Your task to perform on an android device: Search for vegetarian restaurants on Maps Image 0: 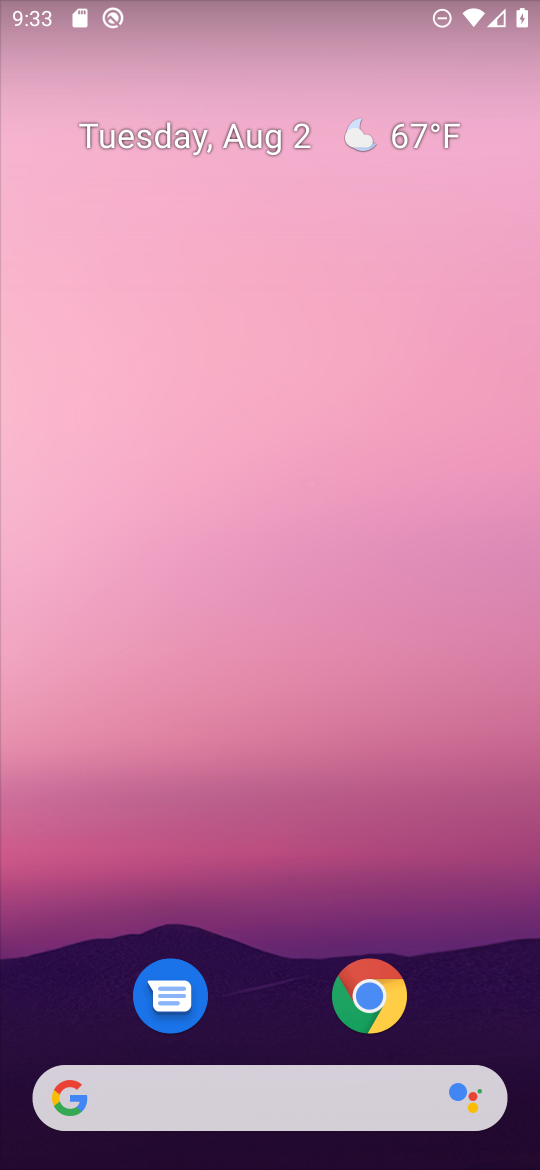
Step 0: drag from (259, 894) to (349, 18)
Your task to perform on an android device: Search for vegetarian restaurants on Maps Image 1: 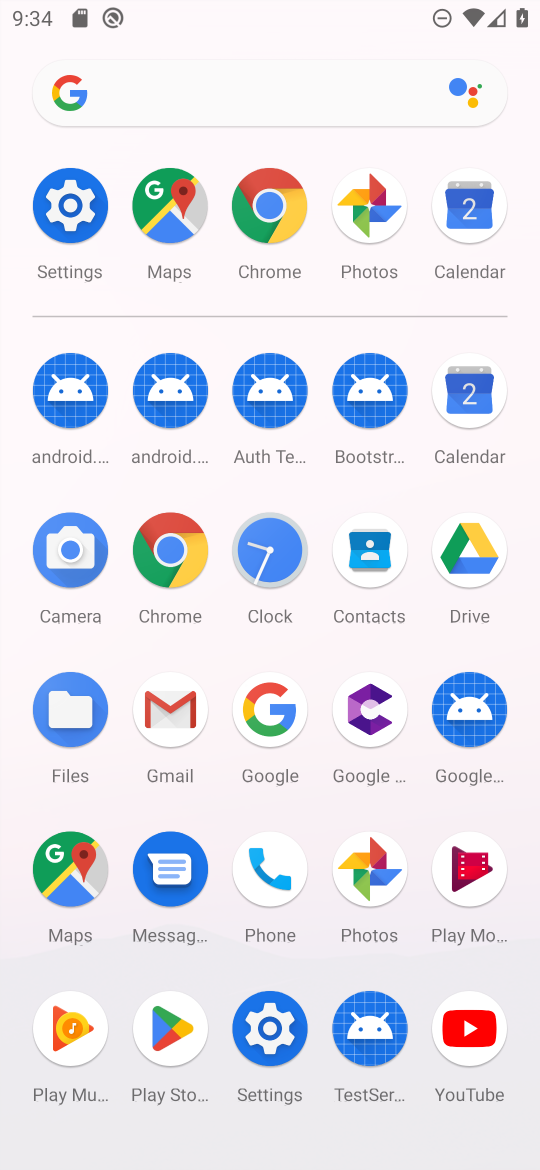
Step 1: click (83, 848)
Your task to perform on an android device: Search for vegetarian restaurants on Maps Image 2: 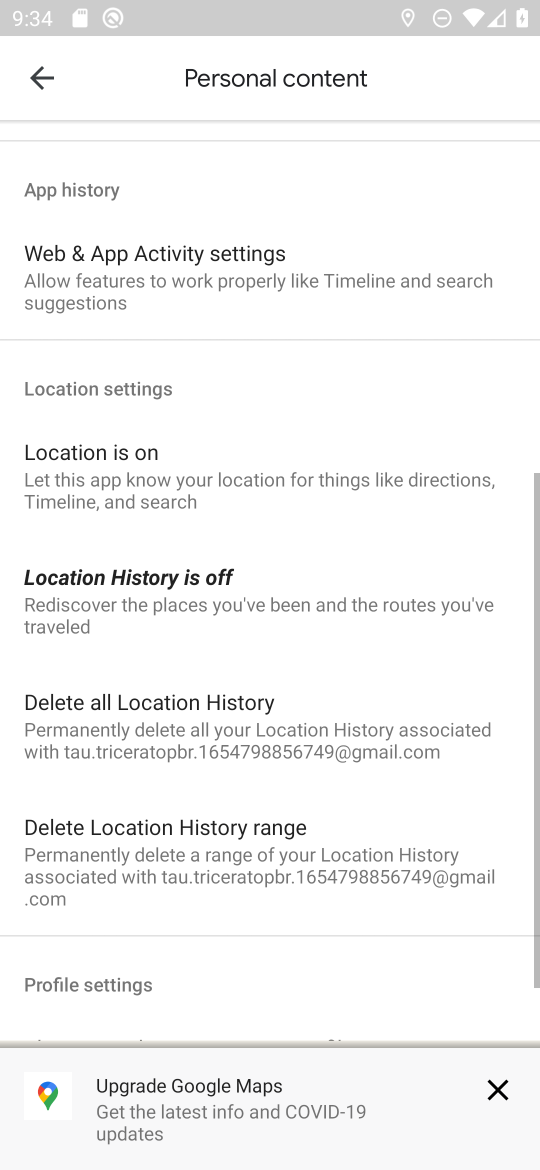
Step 2: click (44, 70)
Your task to perform on an android device: Search for vegetarian restaurants on Maps Image 3: 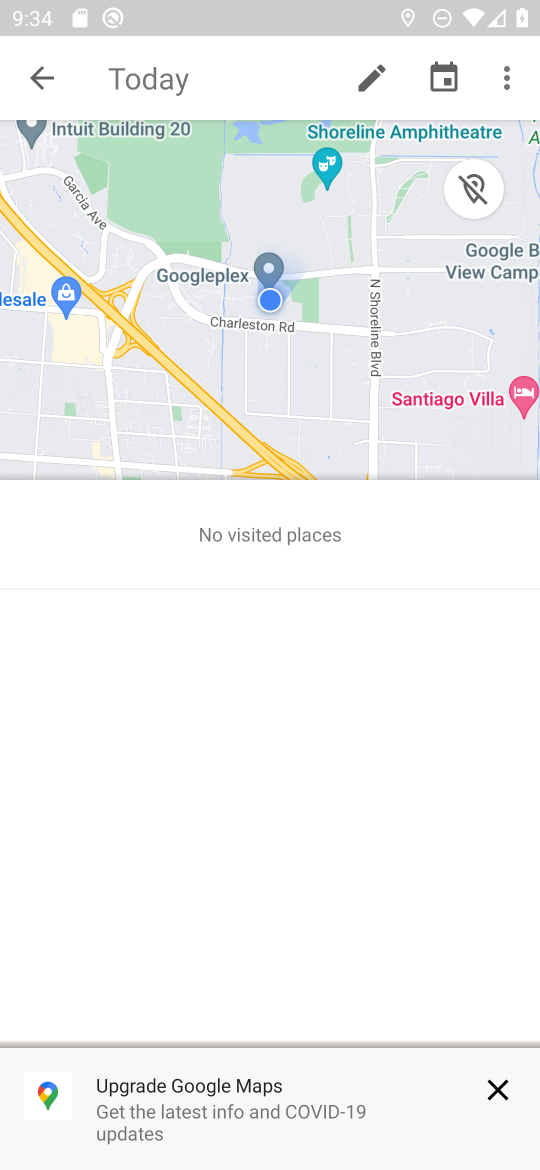
Step 3: click (41, 72)
Your task to perform on an android device: Search for vegetarian restaurants on Maps Image 4: 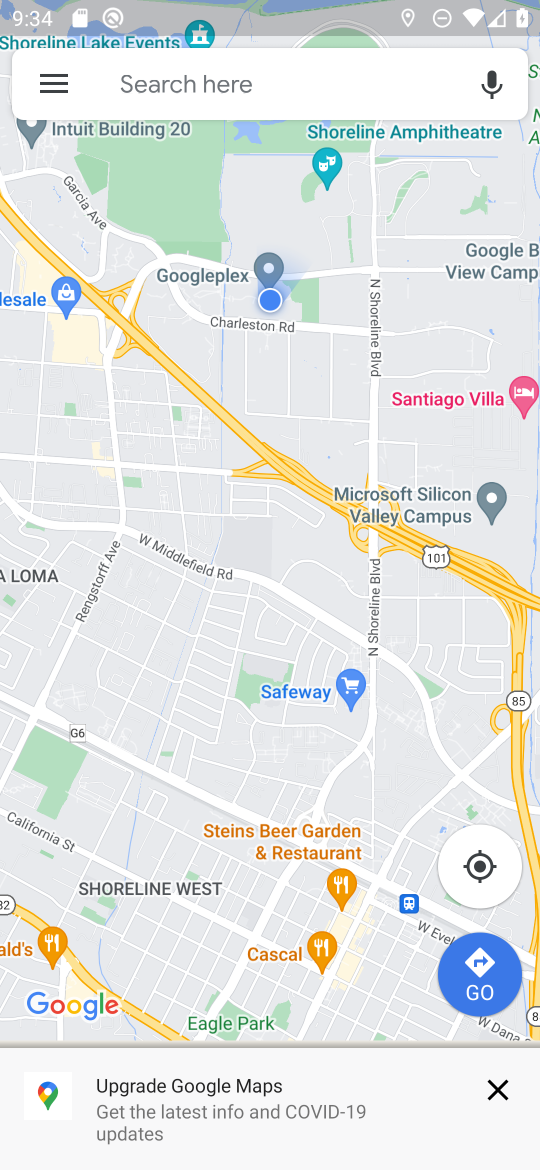
Step 4: click (164, 78)
Your task to perform on an android device: Search for vegetarian restaurants on Maps Image 5: 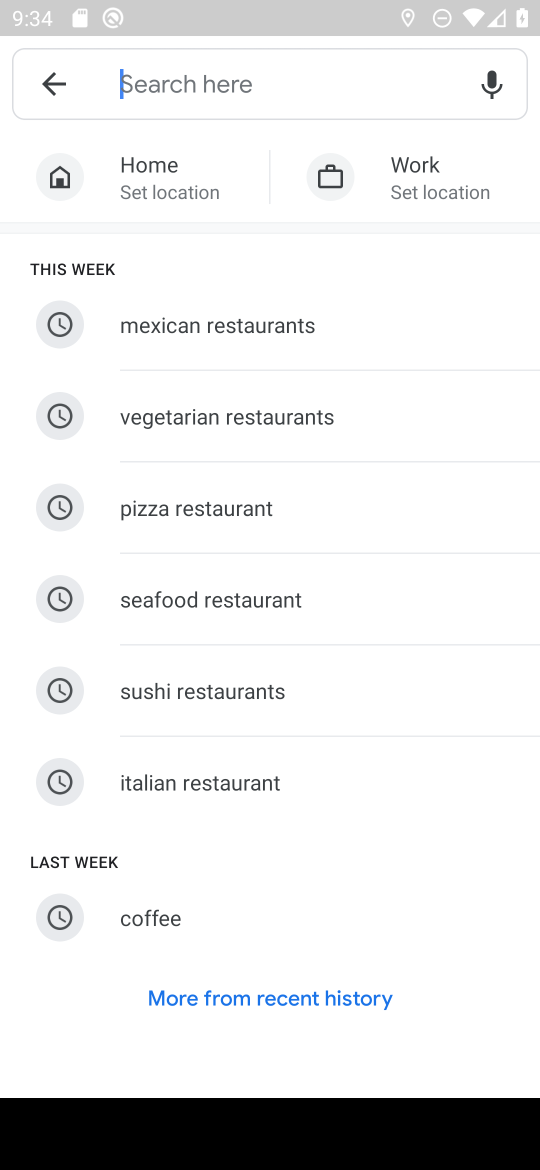
Step 5: type "vegetarian restaurants"
Your task to perform on an android device: Search for vegetarian restaurants on Maps Image 6: 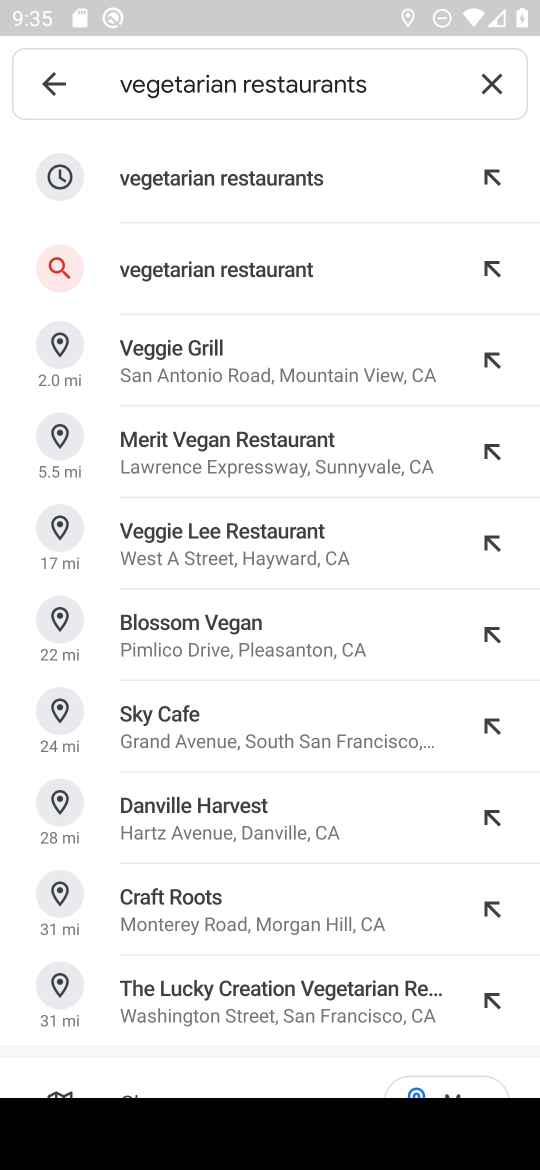
Step 6: click (305, 169)
Your task to perform on an android device: Search for vegetarian restaurants on Maps Image 7: 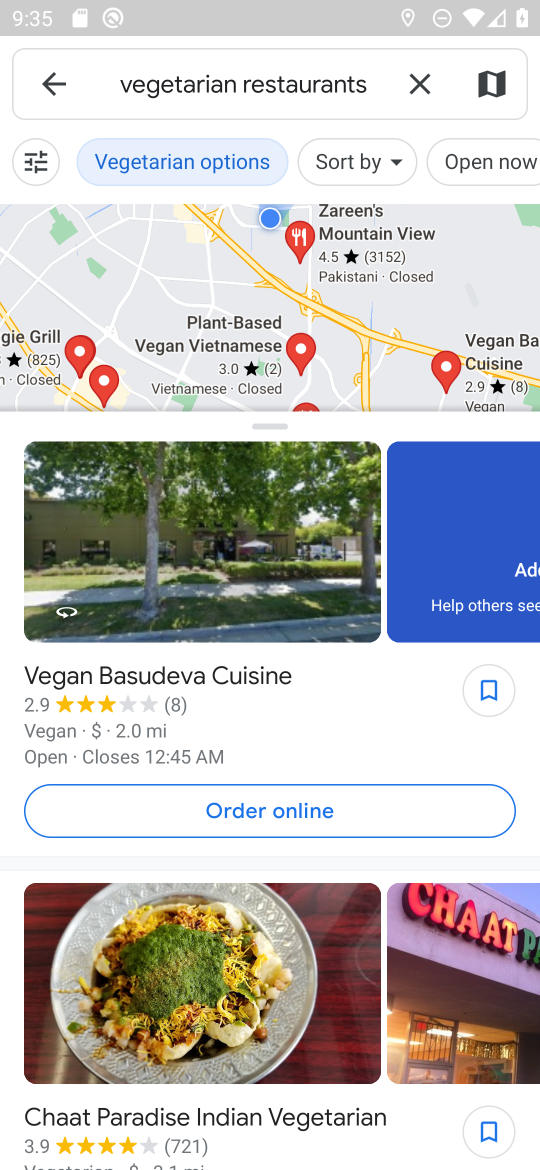
Step 7: task complete